Your task to perform on an android device: open app "Etsy: Buy & Sell Unique Items" (install if not already installed), go to login, and select forgot password Image 0: 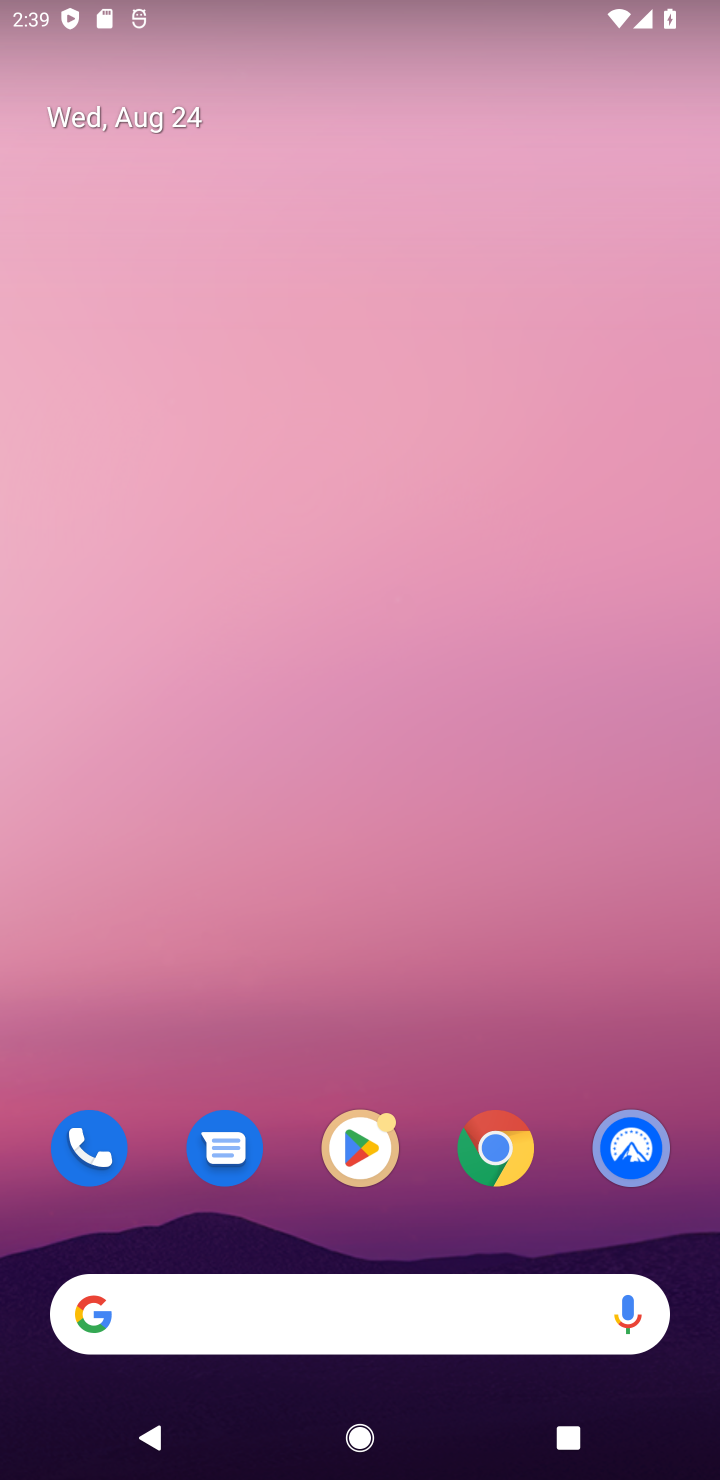
Step 0: drag from (300, 1180) to (311, 163)
Your task to perform on an android device: open app "Etsy: Buy & Sell Unique Items" (install if not already installed), go to login, and select forgot password Image 1: 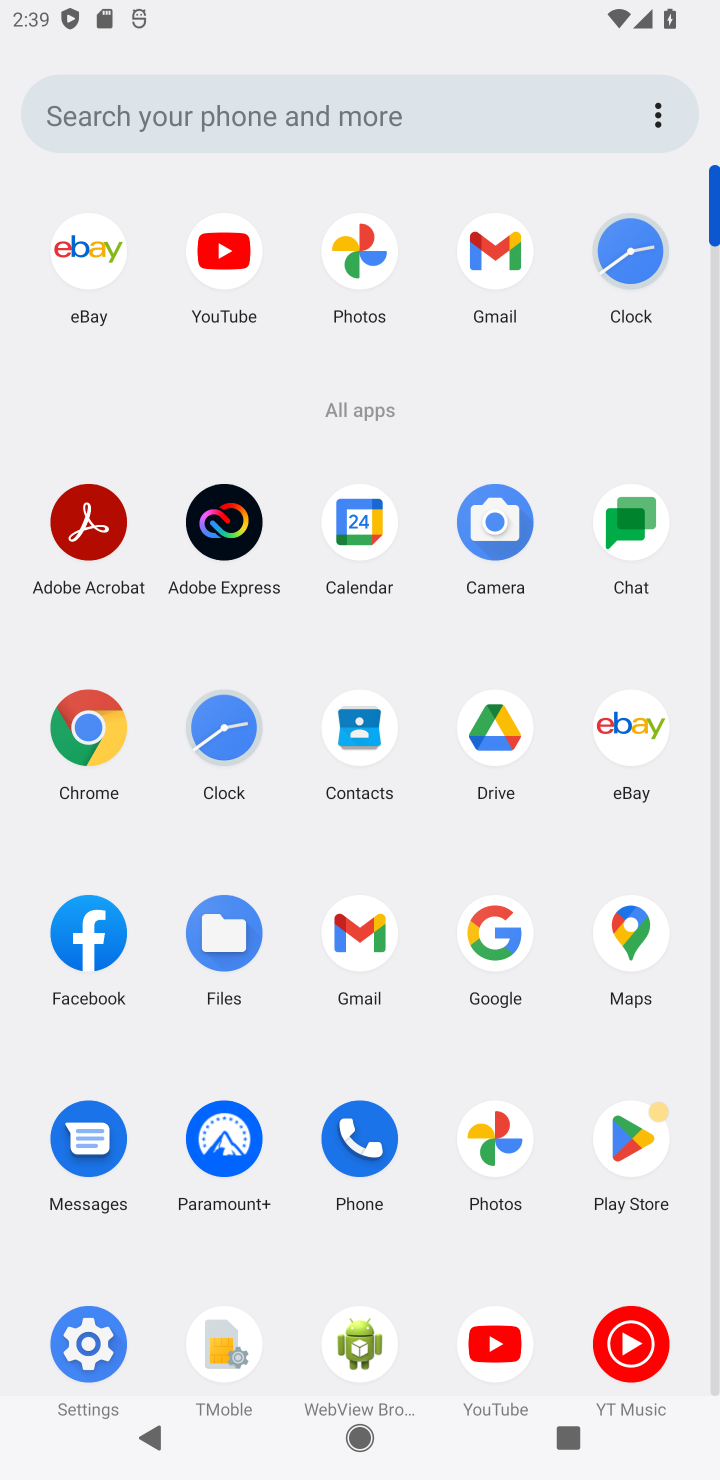
Step 1: click (627, 1131)
Your task to perform on an android device: open app "Etsy: Buy & Sell Unique Items" (install if not already installed), go to login, and select forgot password Image 2: 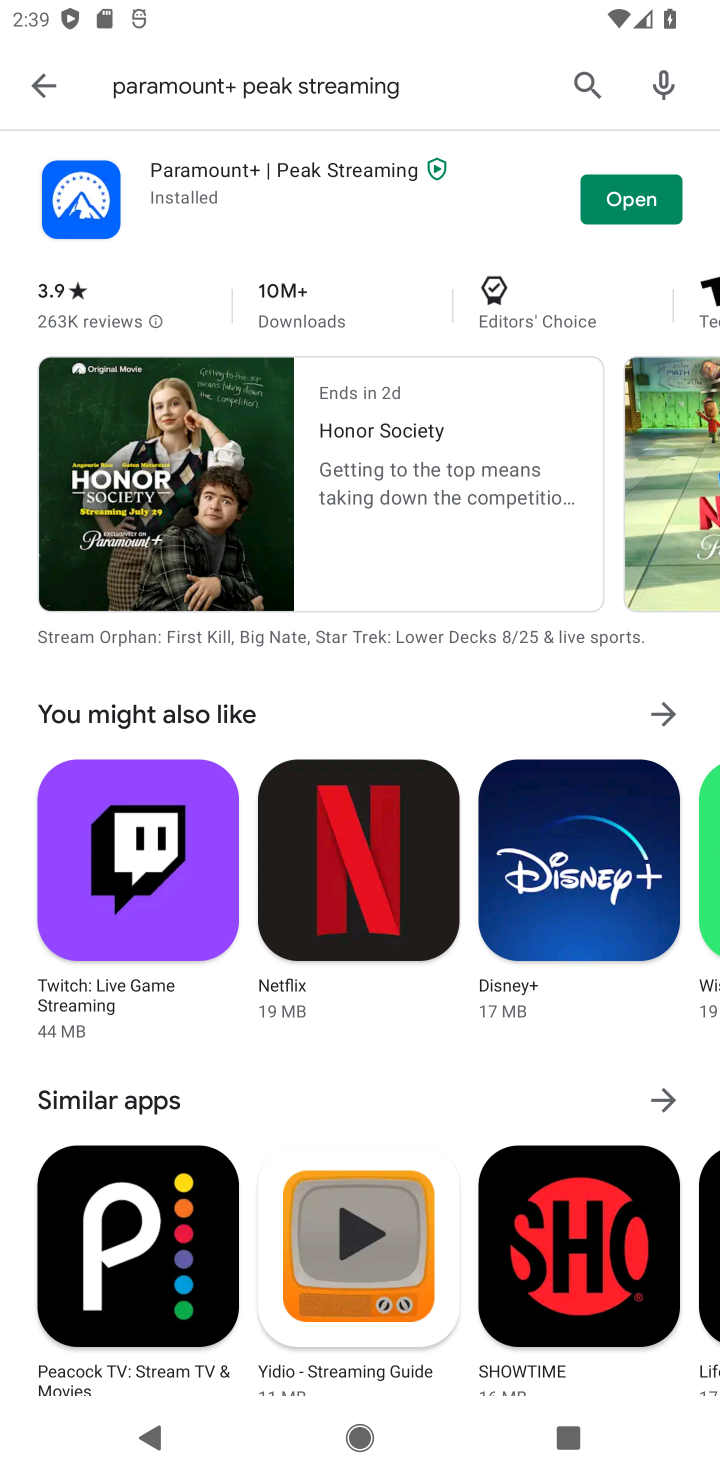
Step 2: click (65, 78)
Your task to perform on an android device: open app "Etsy: Buy & Sell Unique Items" (install if not already installed), go to login, and select forgot password Image 3: 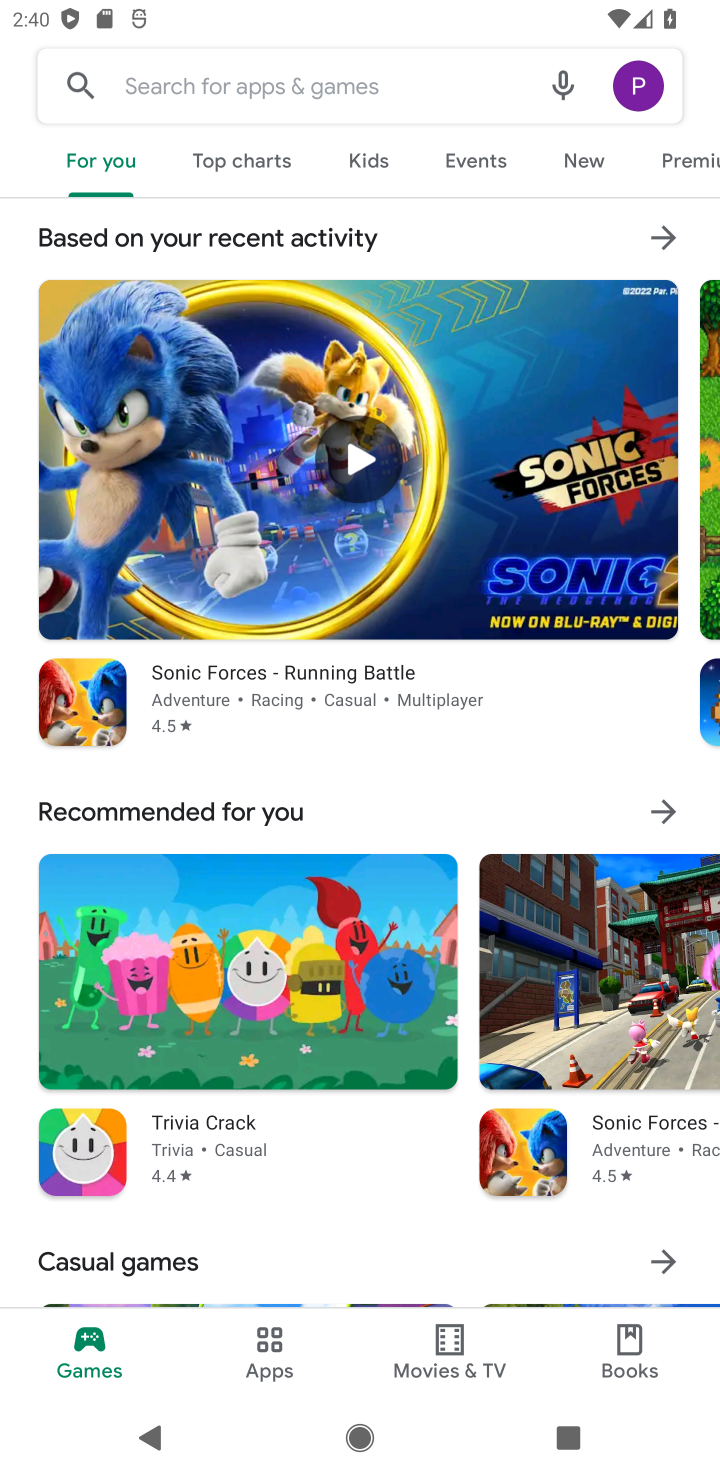
Step 3: click (332, 62)
Your task to perform on an android device: open app "Etsy: Buy & Sell Unique Items" (install if not already installed), go to login, and select forgot password Image 4: 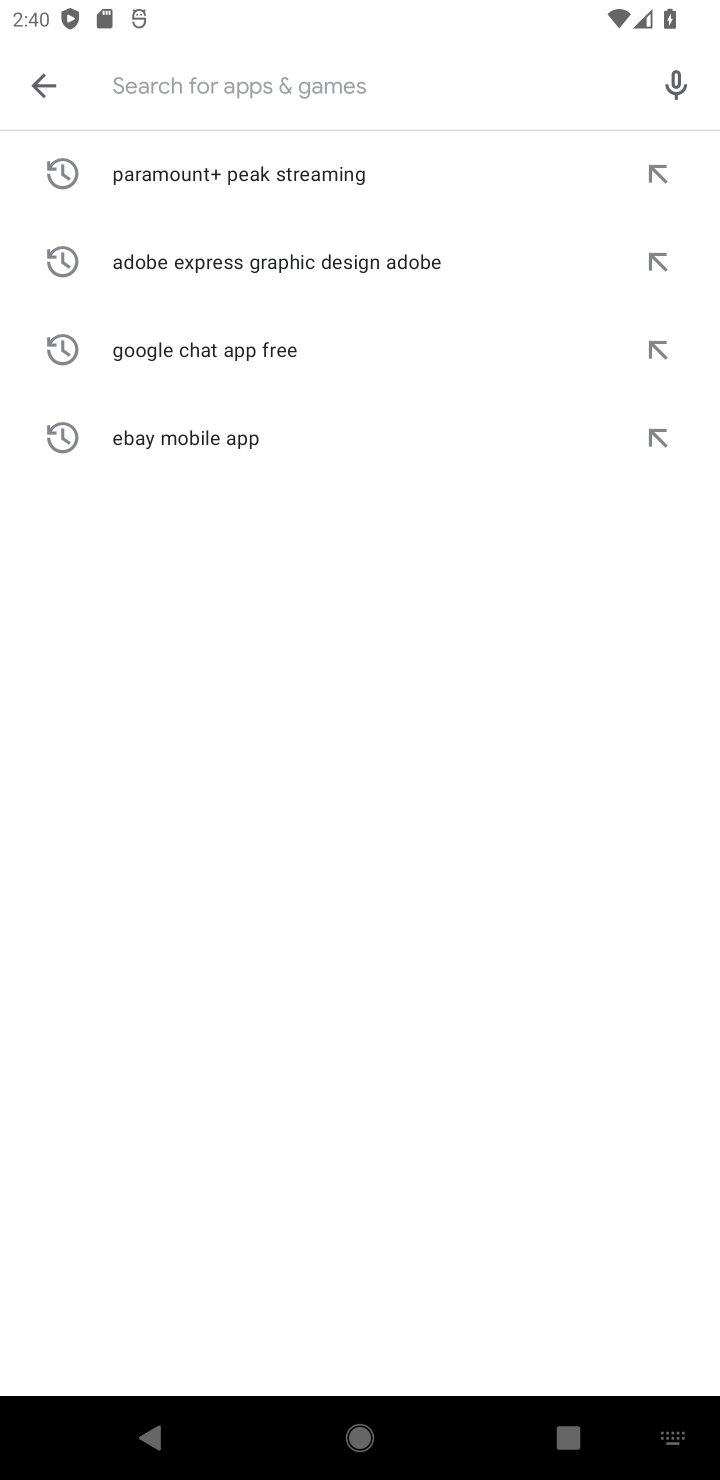
Step 4: type "Etsy: Buy & Sell Unique Items "
Your task to perform on an android device: open app "Etsy: Buy & Sell Unique Items" (install if not already installed), go to login, and select forgot password Image 5: 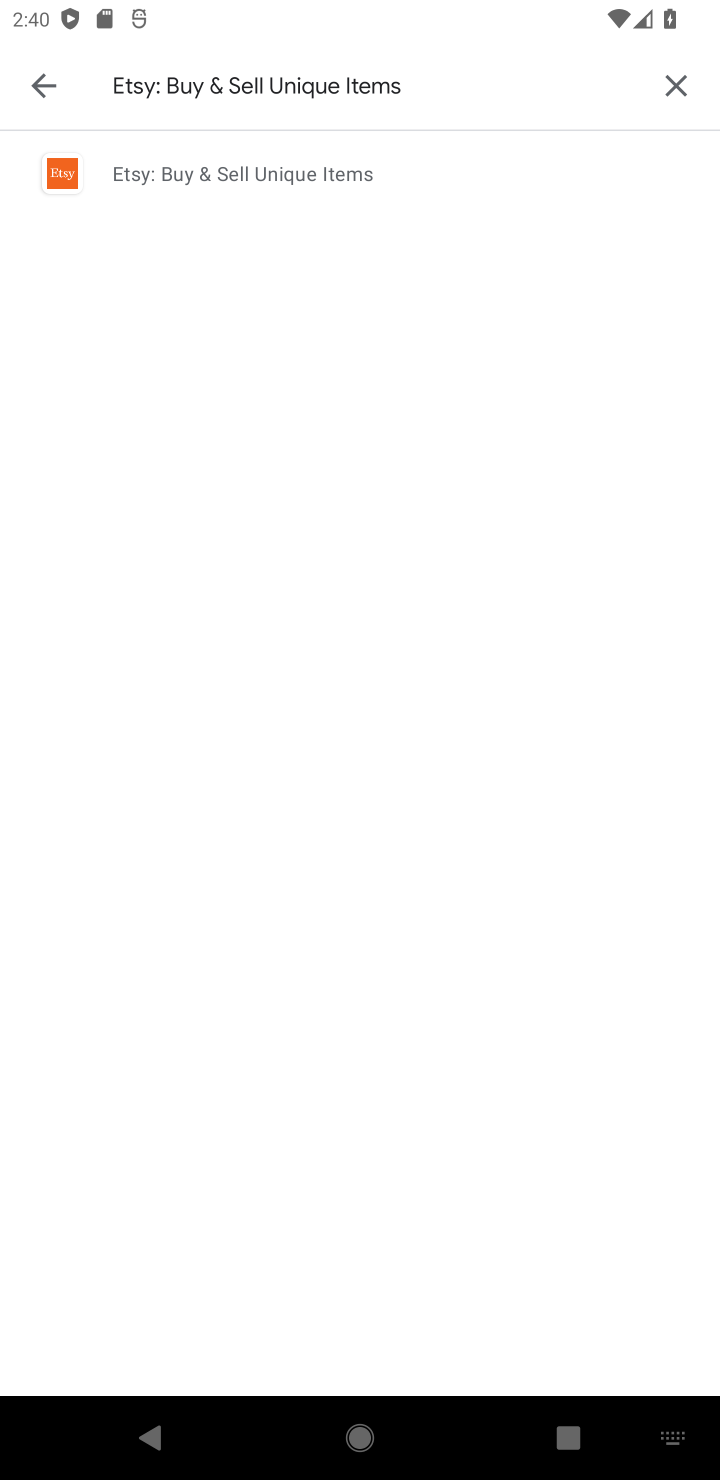
Step 5: click (229, 175)
Your task to perform on an android device: open app "Etsy: Buy & Sell Unique Items" (install if not already installed), go to login, and select forgot password Image 6: 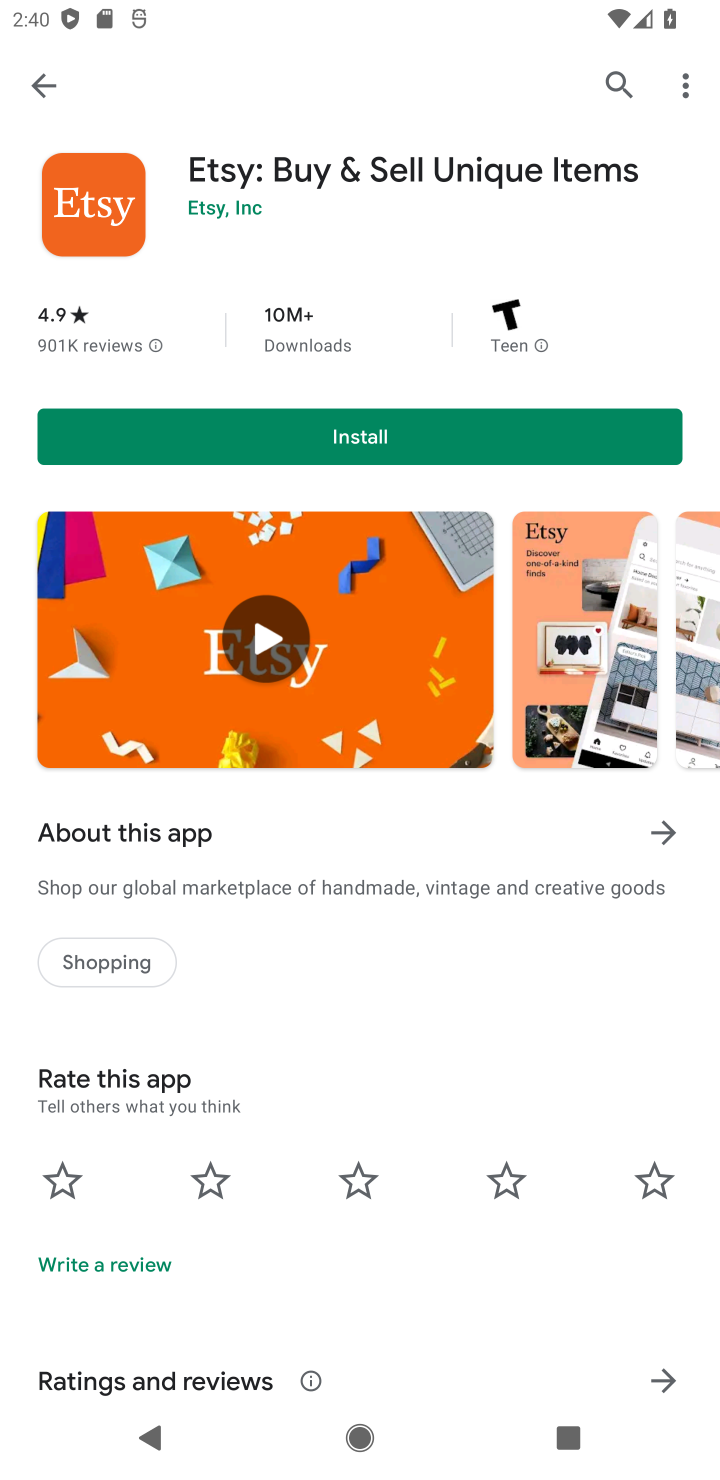
Step 6: click (386, 430)
Your task to perform on an android device: open app "Etsy: Buy & Sell Unique Items" (install if not already installed), go to login, and select forgot password Image 7: 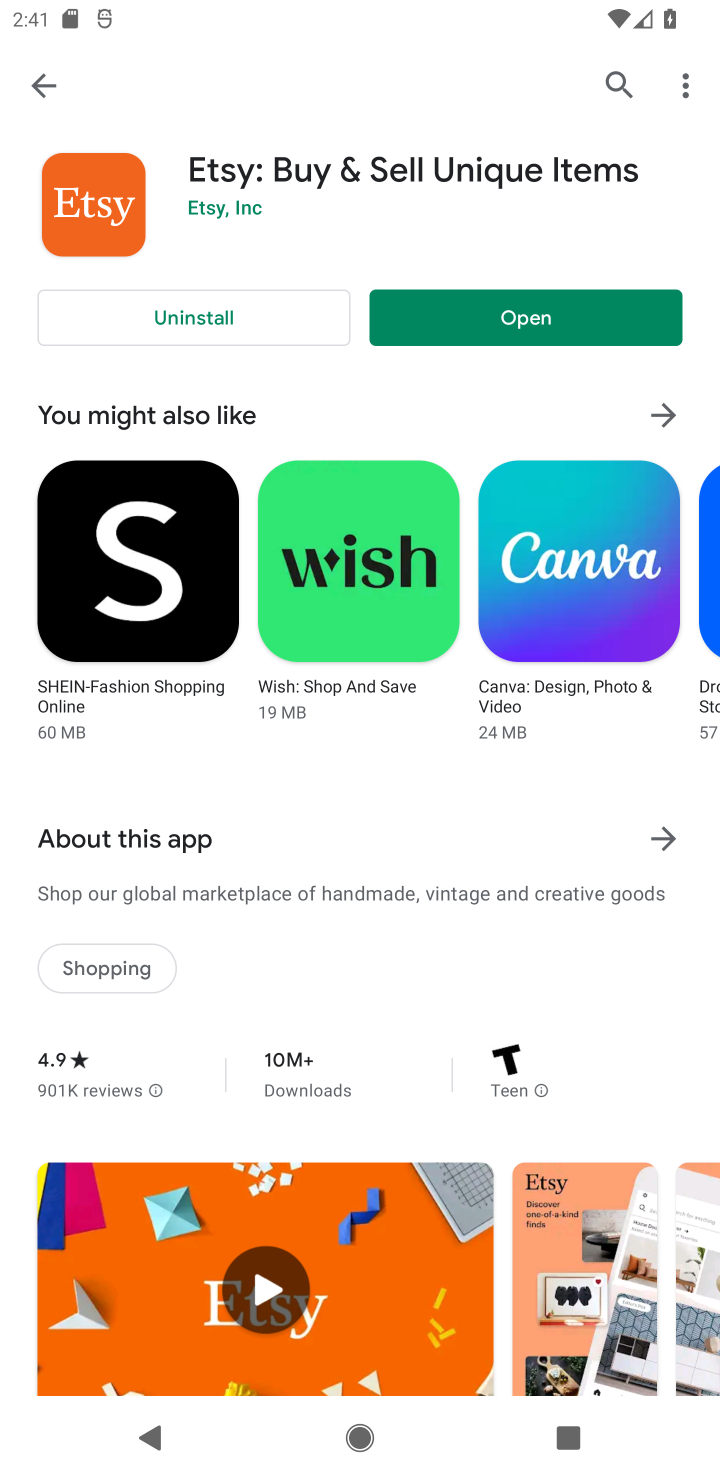
Step 7: click (475, 323)
Your task to perform on an android device: open app "Etsy: Buy & Sell Unique Items" (install if not already installed), go to login, and select forgot password Image 8: 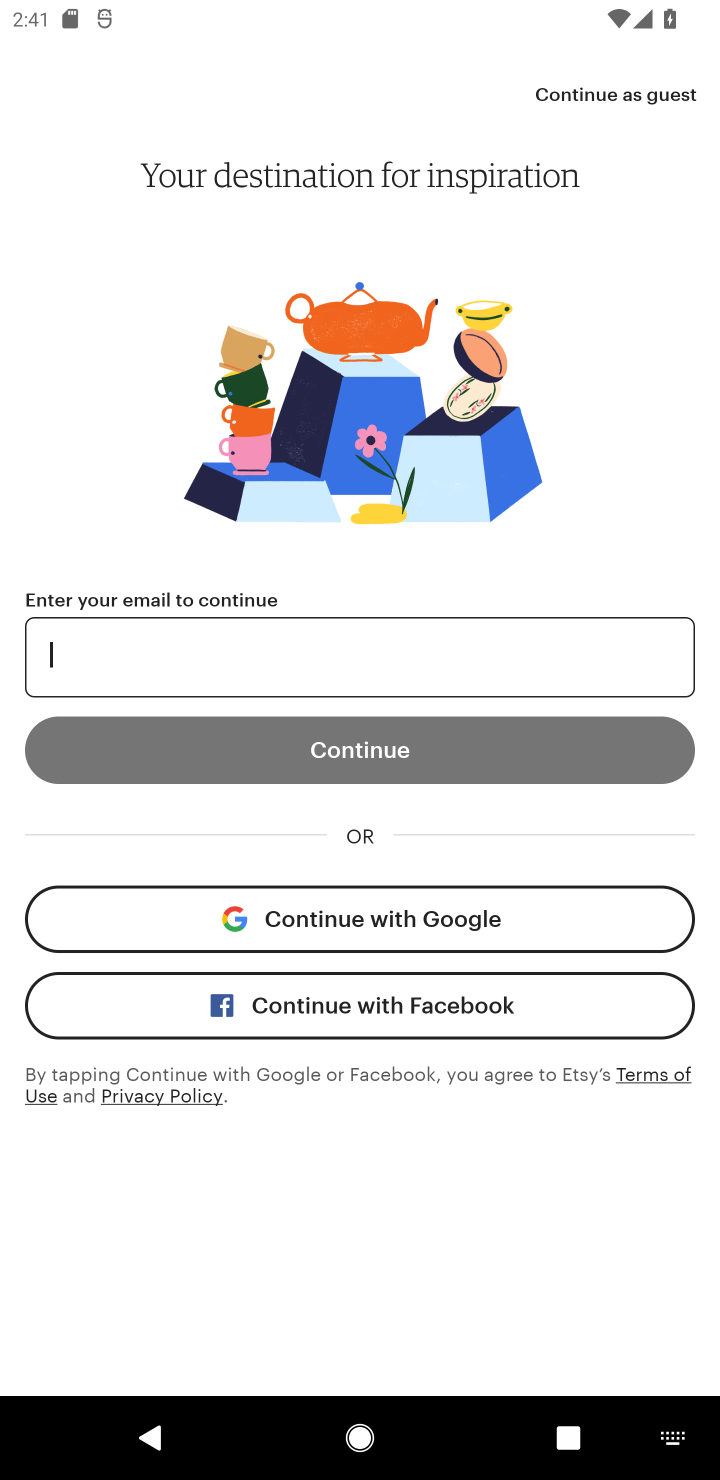
Step 8: task complete